Your task to perform on an android device: Open the phone app and click the voicemail tab. Image 0: 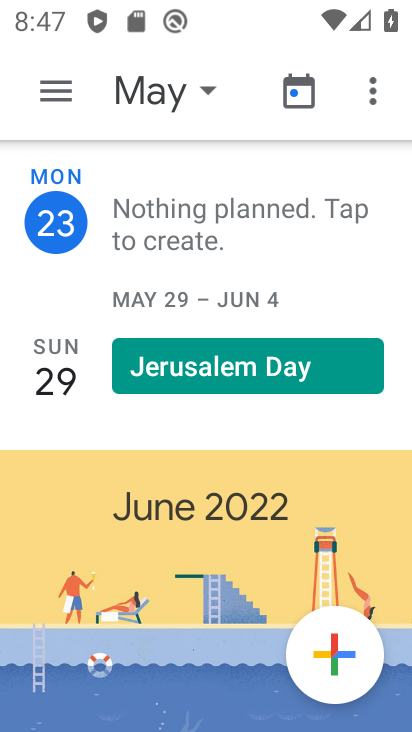
Step 0: press back button
Your task to perform on an android device: Open the phone app and click the voicemail tab. Image 1: 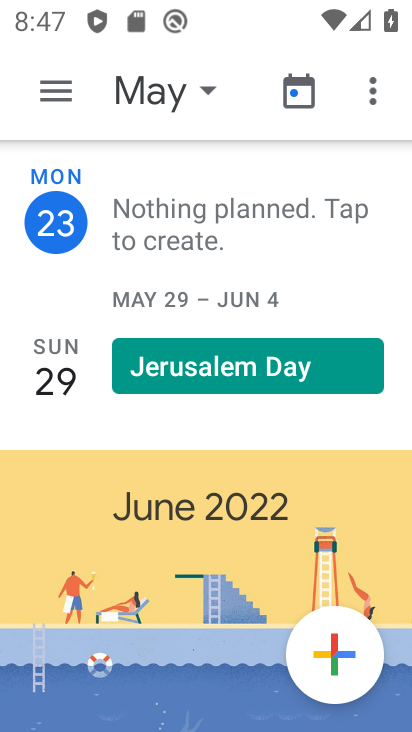
Step 1: press back button
Your task to perform on an android device: Open the phone app and click the voicemail tab. Image 2: 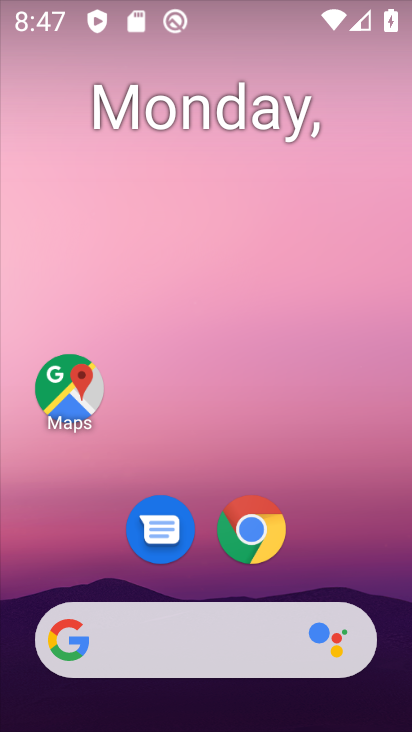
Step 2: press home button
Your task to perform on an android device: Open the phone app and click the voicemail tab. Image 3: 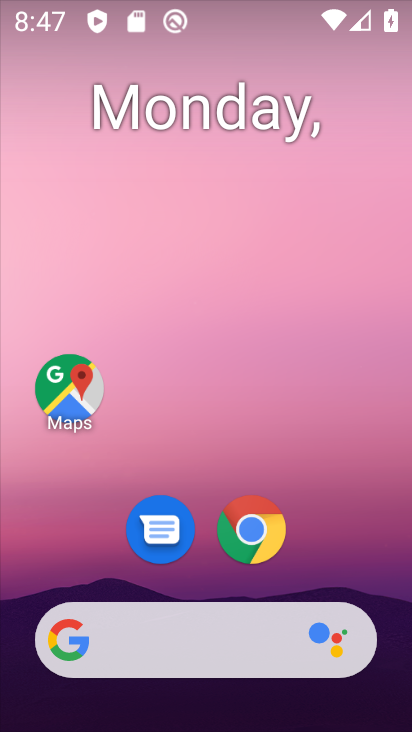
Step 3: drag from (311, 702) to (194, 36)
Your task to perform on an android device: Open the phone app and click the voicemail tab. Image 4: 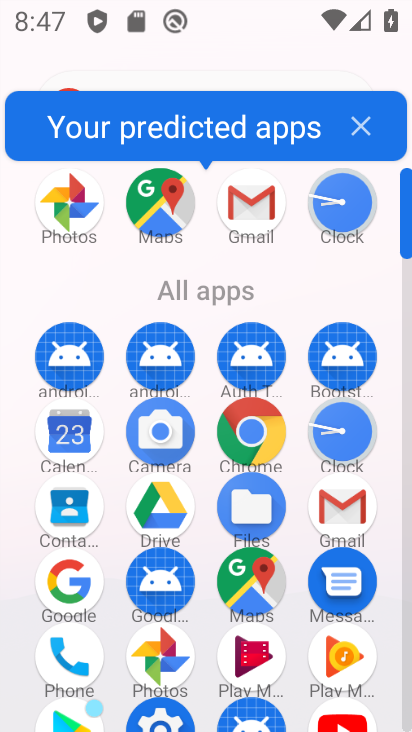
Step 4: drag from (312, 566) to (312, 217)
Your task to perform on an android device: Open the phone app and click the voicemail tab. Image 5: 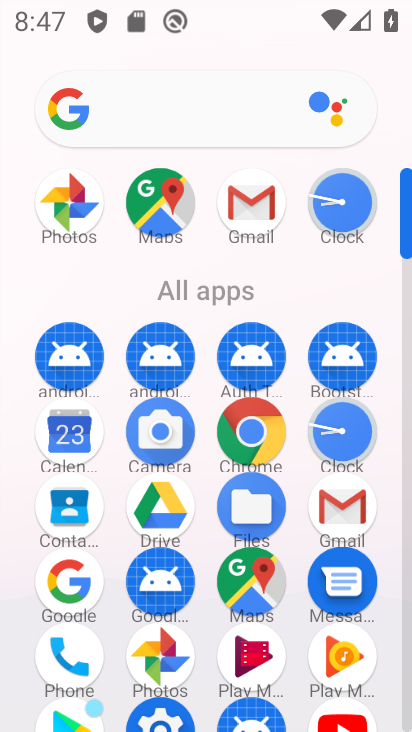
Step 5: drag from (311, 465) to (289, 106)
Your task to perform on an android device: Open the phone app and click the voicemail tab. Image 6: 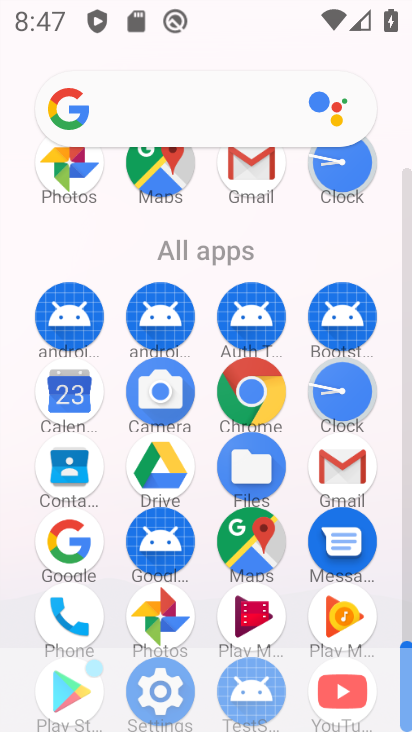
Step 6: drag from (305, 504) to (307, 152)
Your task to perform on an android device: Open the phone app and click the voicemail tab. Image 7: 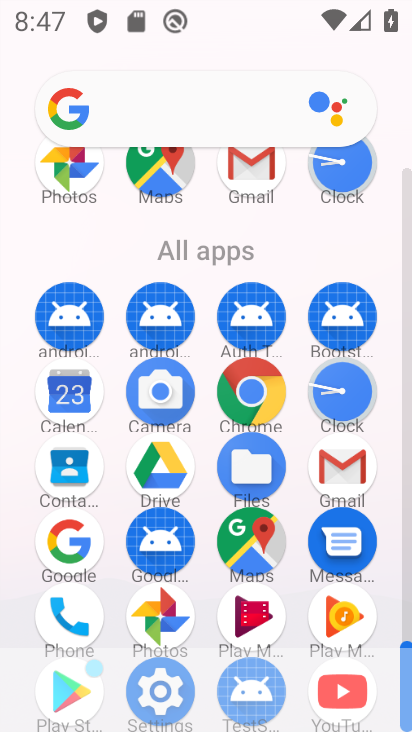
Step 7: click (80, 615)
Your task to perform on an android device: Open the phone app and click the voicemail tab. Image 8: 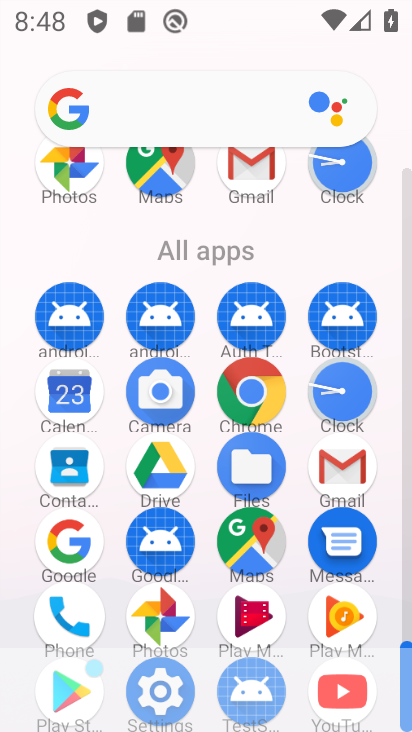
Step 8: click (79, 614)
Your task to perform on an android device: Open the phone app and click the voicemail tab. Image 9: 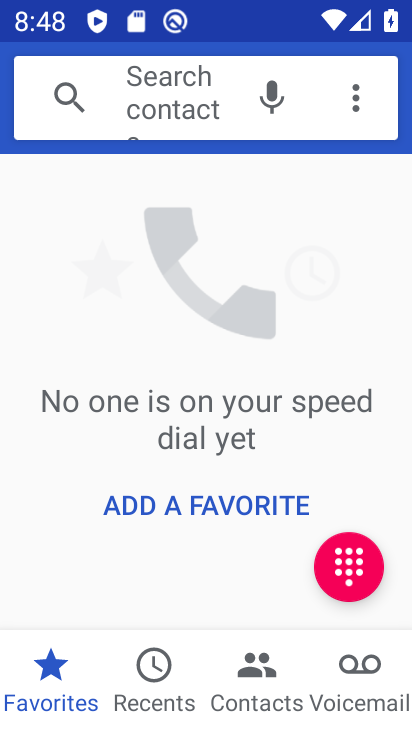
Step 9: click (351, 687)
Your task to perform on an android device: Open the phone app and click the voicemail tab. Image 10: 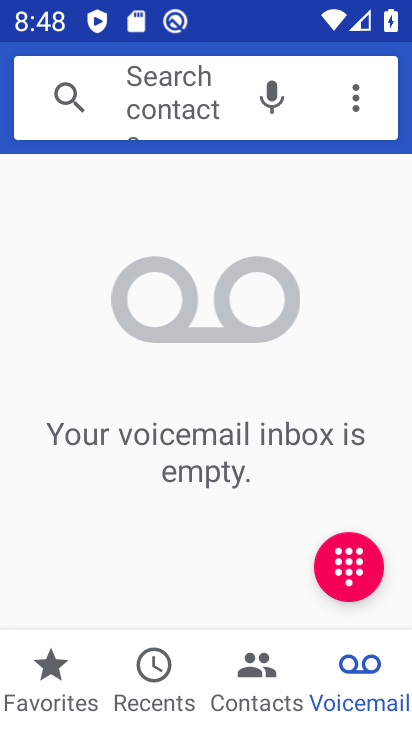
Step 10: click (334, 685)
Your task to perform on an android device: Open the phone app and click the voicemail tab. Image 11: 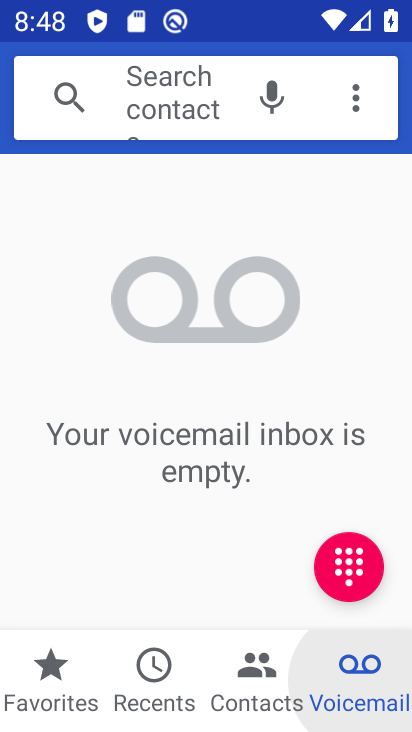
Step 11: click (340, 689)
Your task to perform on an android device: Open the phone app and click the voicemail tab. Image 12: 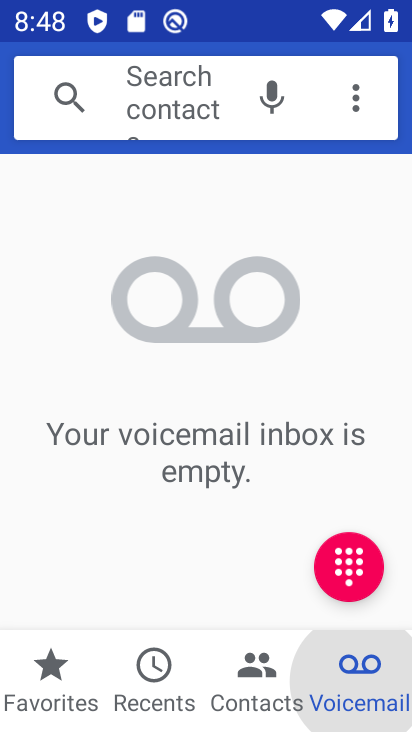
Step 12: click (340, 696)
Your task to perform on an android device: Open the phone app and click the voicemail tab. Image 13: 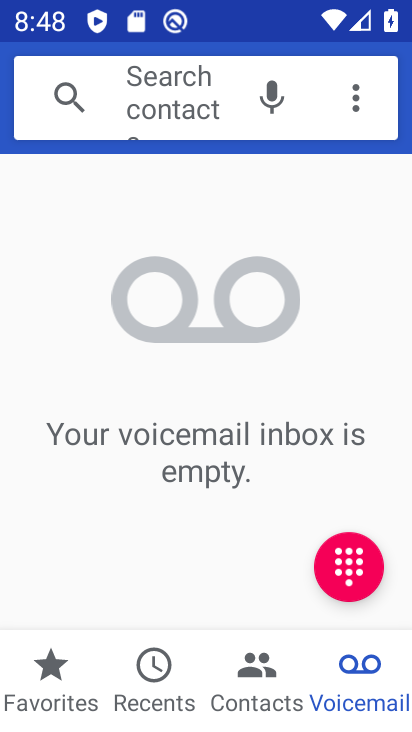
Step 13: task complete